Your task to perform on an android device: Go to Google Image 0: 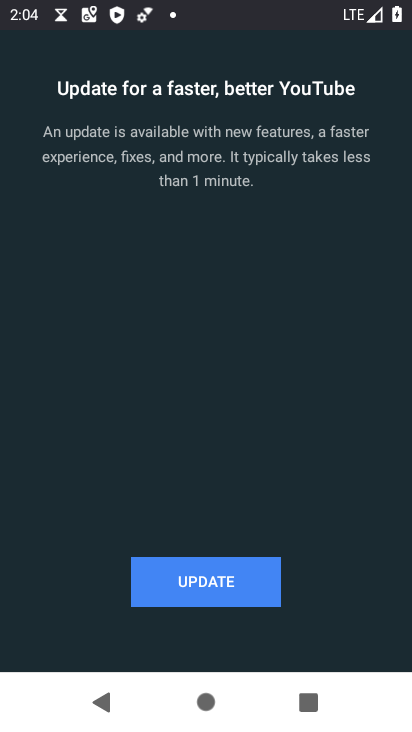
Step 0: press home button
Your task to perform on an android device: Go to Google Image 1: 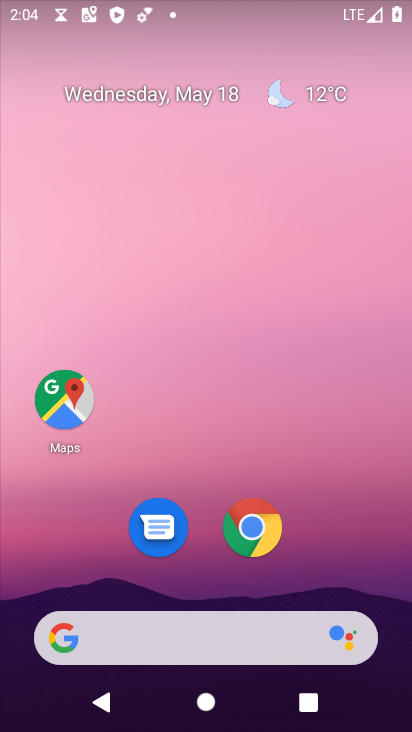
Step 1: drag from (325, 545) to (217, 50)
Your task to perform on an android device: Go to Google Image 2: 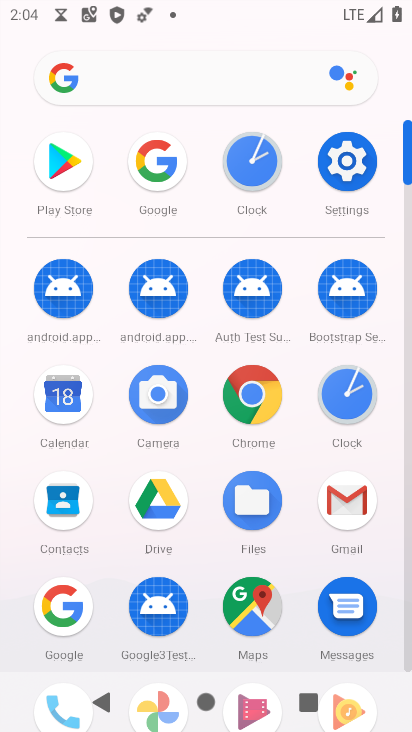
Step 2: click (69, 605)
Your task to perform on an android device: Go to Google Image 3: 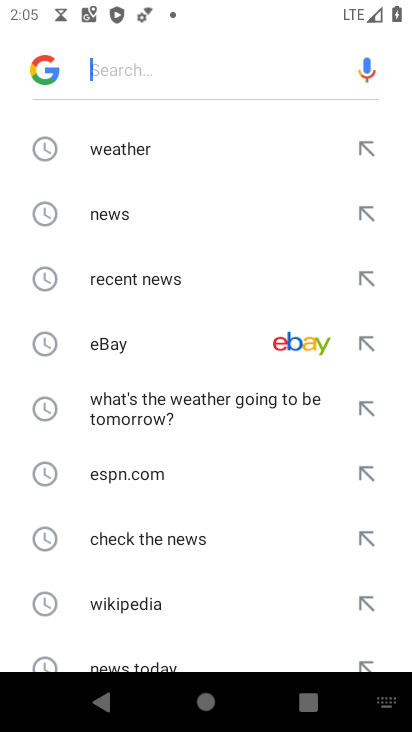
Step 3: task complete